Your task to perform on an android device: Open Reddit.com Image 0: 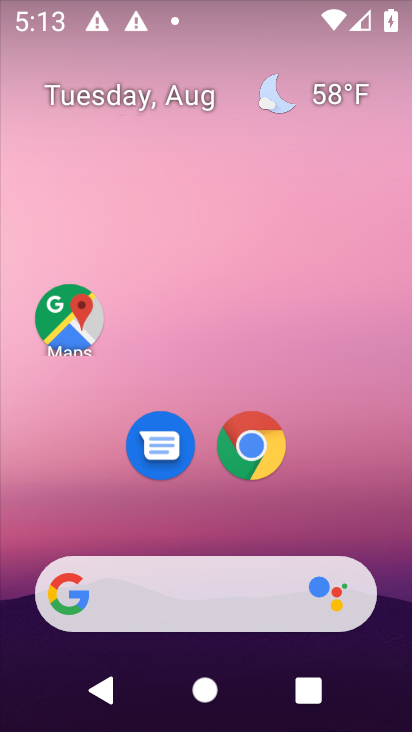
Step 0: click (244, 446)
Your task to perform on an android device: Open Reddit.com Image 1: 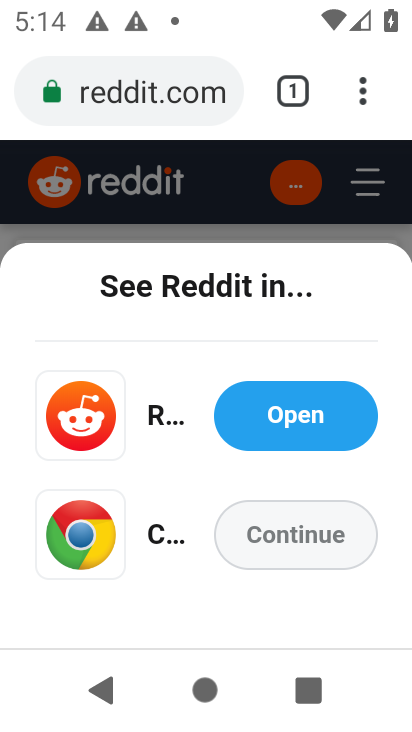
Step 1: click (284, 424)
Your task to perform on an android device: Open Reddit.com Image 2: 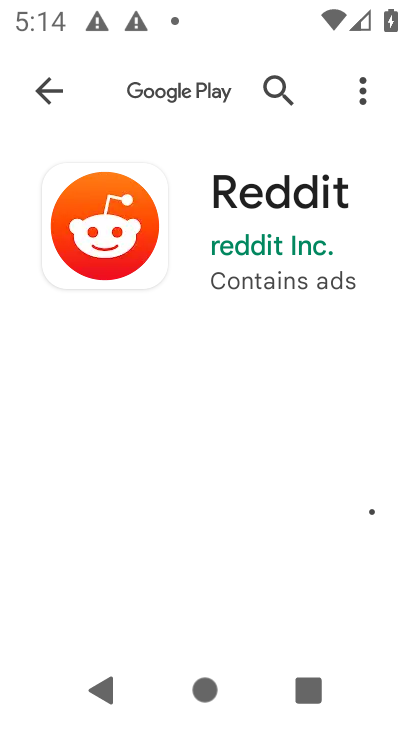
Step 2: click (38, 99)
Your task to perform on an android device: Open Reddit.com Image 3: 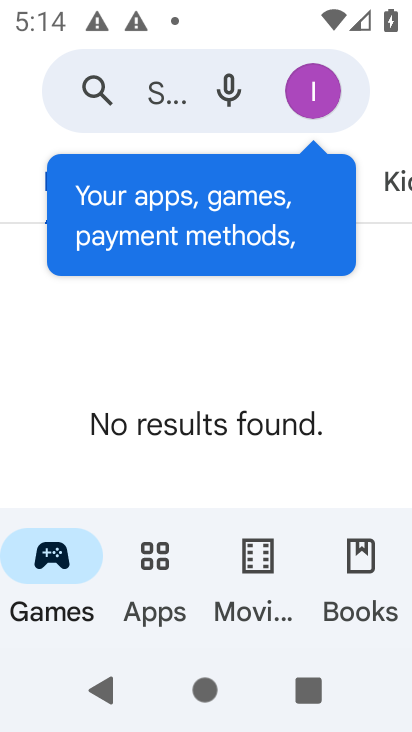
Step 3: press back button
Your task to perform on an android device: Open Reddit.com Image 4: 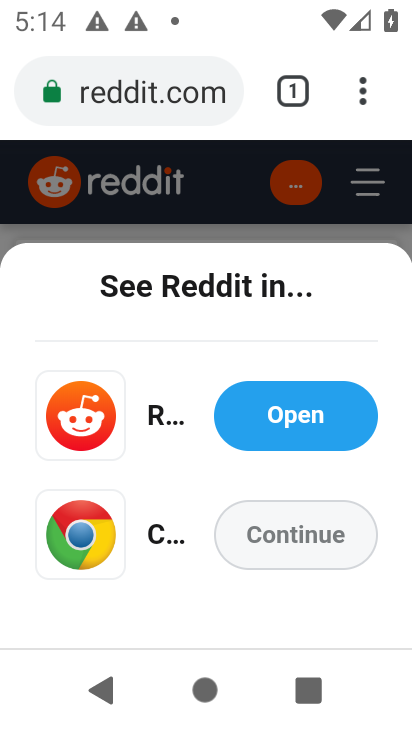
Step 4: click (350, 533)
Your task to perform on an android device: Open Reddit.com Image 5: 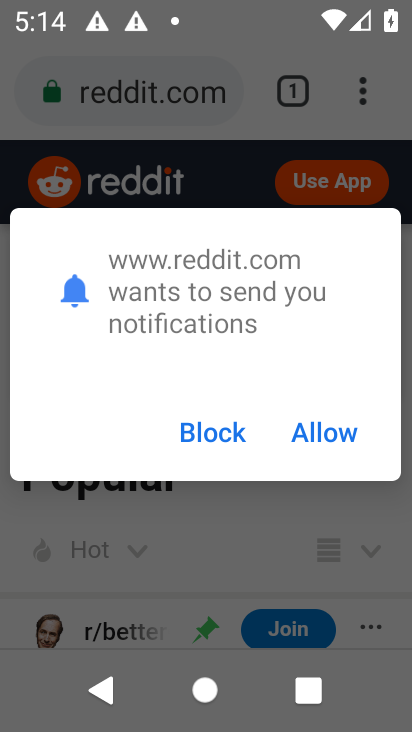
Step 5: click (325, 431)
Your task to perform on an android device: Open Reddit.com Image 6: 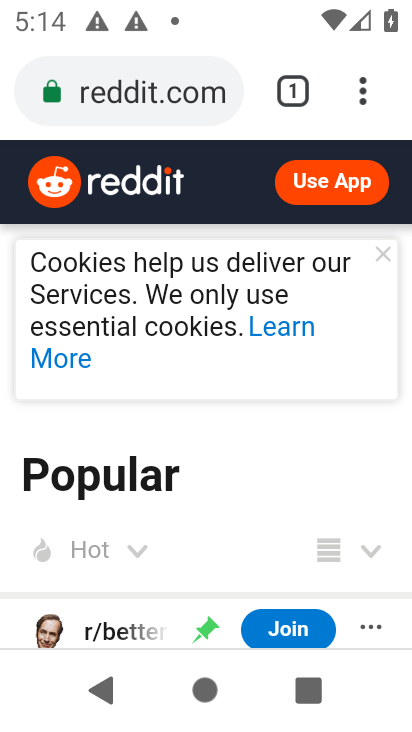
Step 6: task complete